Your task to perform on an android device: turn on location history Image 0: 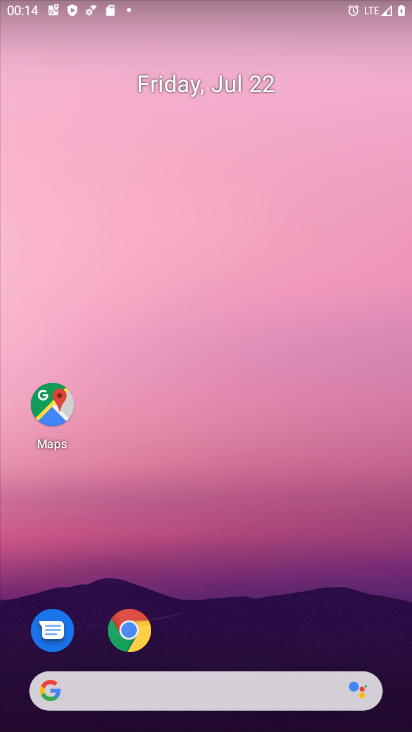
Step 0: drag from (207, 619) to (78, 102)
Your task to perform on an android device: turn on location history Image 1: 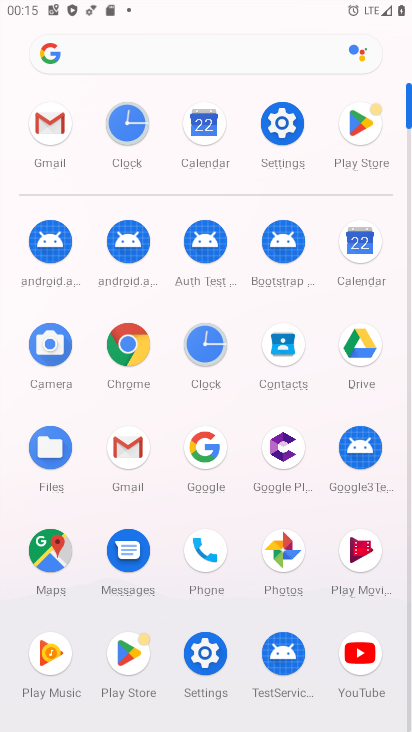
Step 1: click (288, 134)
Your task to perform on an android device: turn on location history Image 2: 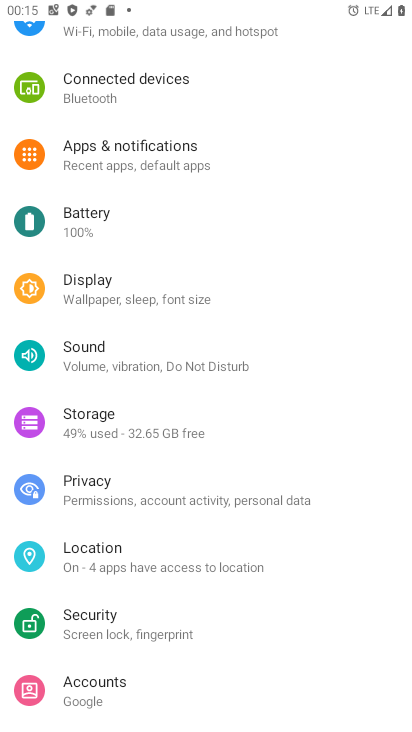
Step 2: click (93, 552)
Your task to perform on an android device: turn on location history Image 3: 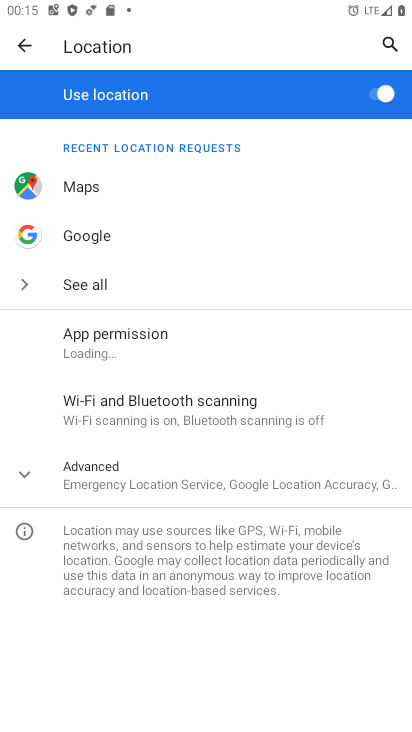
Step 3: click (162, 482)
Your task to perform on an android device: turn on location history Image 4: 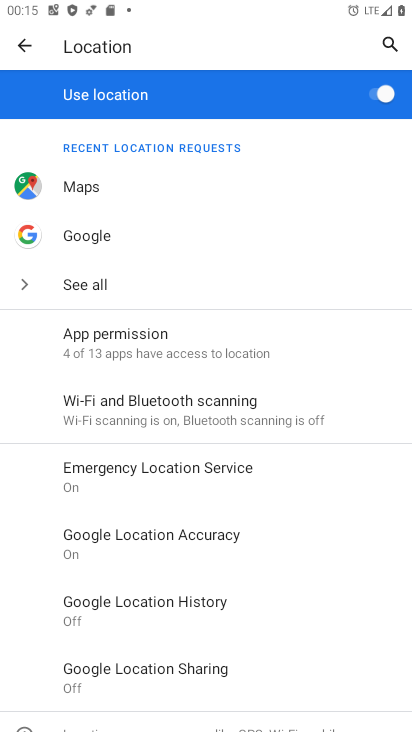
Step 4: click (139, 609)
Your task to perform on an android device: turn on location history Image 5: 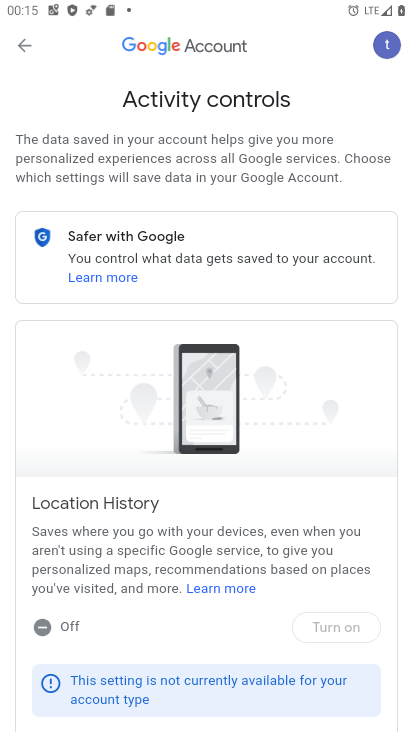
Step 5: click (351, 629)
Your task to perform on an android device: turn on location history Image 6: 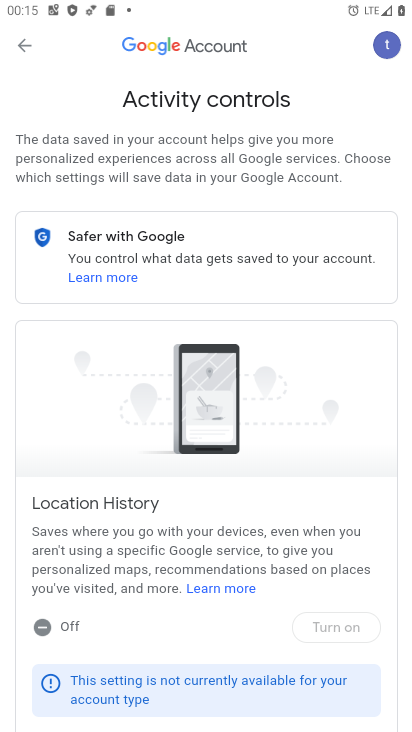
Step 6: drag from (283, 649) to (282, 412)
Your task to perform on an android device: turn on location history Image 7: 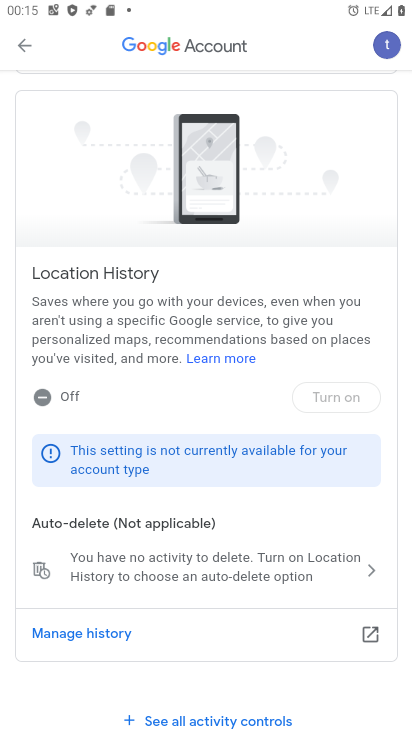
Step 7: click (331, 397)
Your task to perform on an android device: turn on location history Image 8: 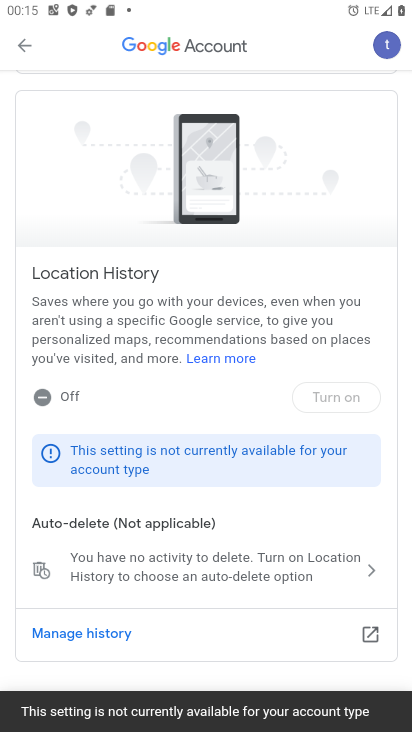
Step 8: drag from (155, 545) to (165, 417)
Your task to perform on an android device: turn on location history Image 9: 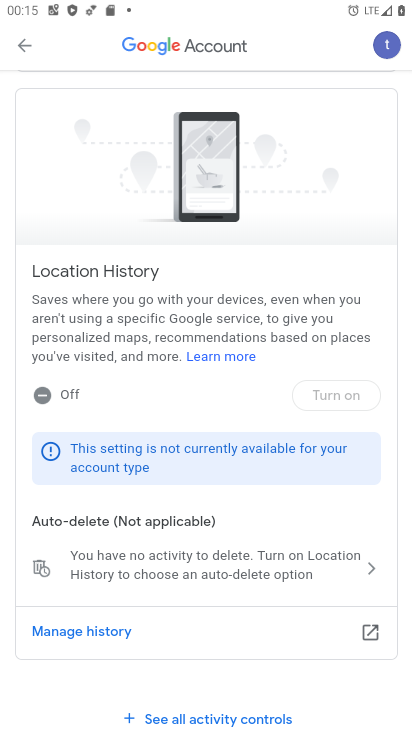
Step 9: click (43, 396)
Your task to perform on an android device: turn on location history Image 10: 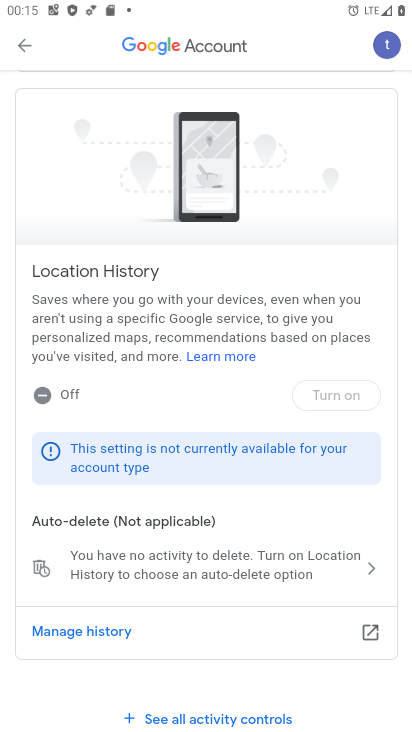
Step 10: click (344, 390)
Your task to perform on an android device: turn on location history Image 11: 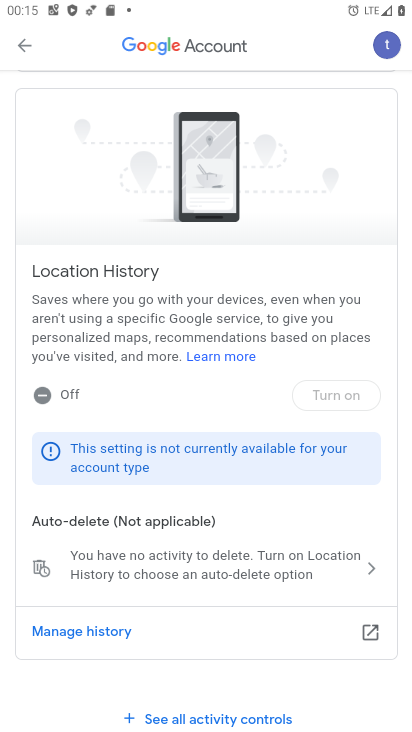
Step 11: task complete